Your task to perform on an android device: Go to accessibility settings Image 0: 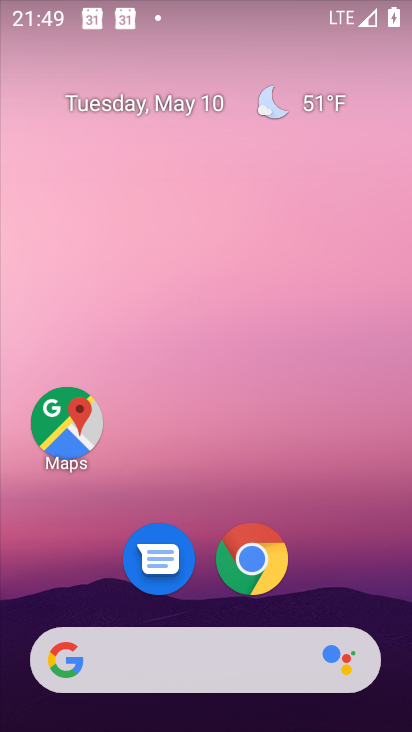
Step 0: drag from (316, 490) to (222, 32)
Your task to perform on an android device: Go to accessibility settings Image 1: 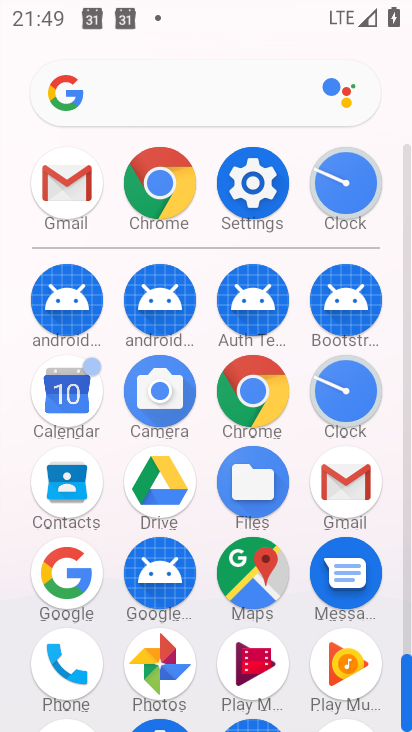
Step 1: click (253, 182)
Your task to perform on an android device: Go to accessibility settings Image 2: 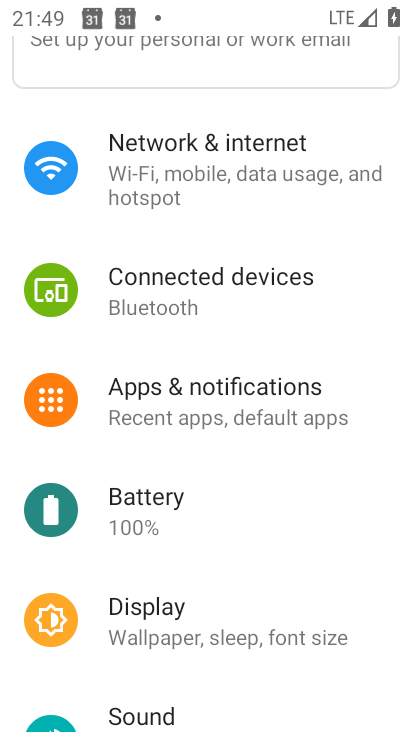
Step 2: drag from (211, 575) to (260, 471)
Your task to perform on an android device: Go to accessibility settings Image 3: 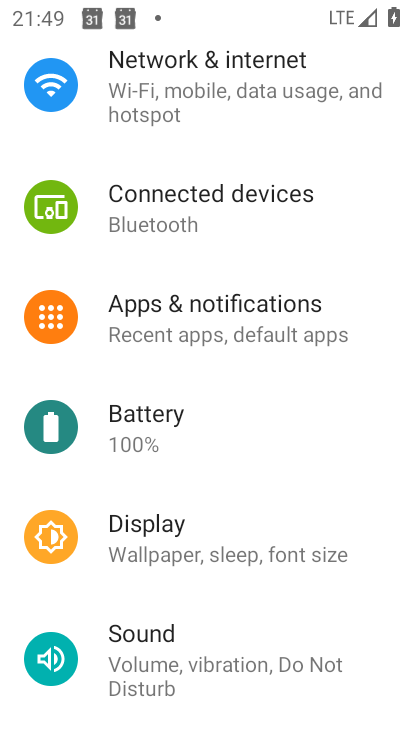
Step 3: drag from (214, 597) to (253, 506)
Your task to perform on an android device: Go to accessibility settings Image 4: 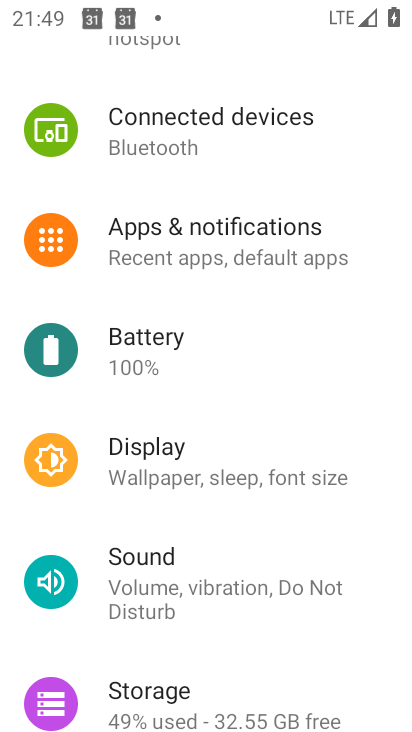
Step 4: drag from (225, 645) to (292, 479)
Your task to perform on an android device: Go to accessibility settings Image 5: 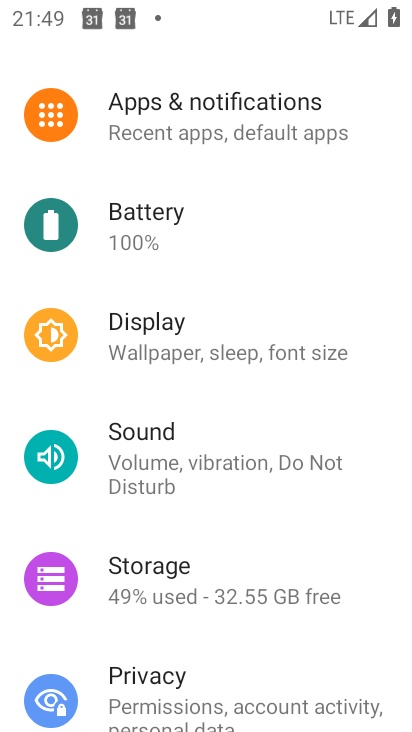
Step 5: drag from (230, 640) to (262, 498)
Your task to perform on an android device: Go to accessibility settings Image 6: 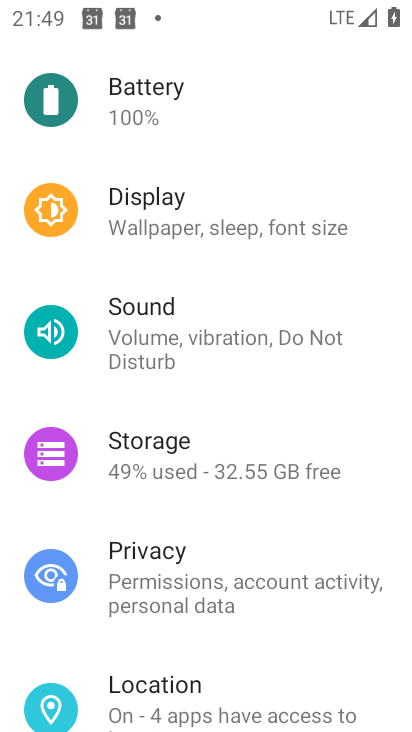
Step 6: drag from (153, 647) to (213, 506)
Your task to perform on an android device: Go to accessibility settings Image 7: 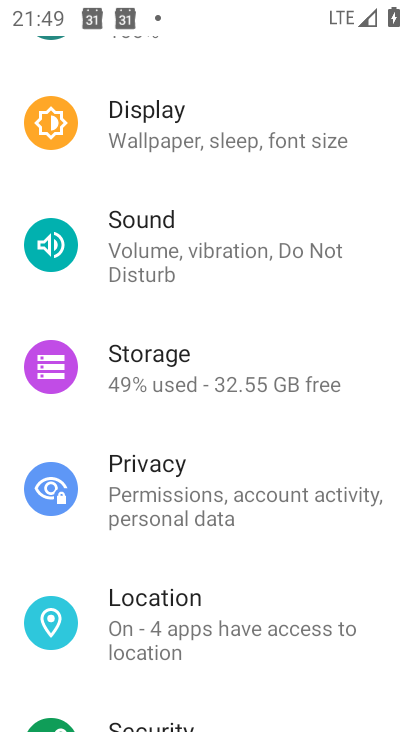
Step 7: drag from (132, 668) to (165, 526)
Your task to perform on an android device: Go to accessibility settings Image 8: 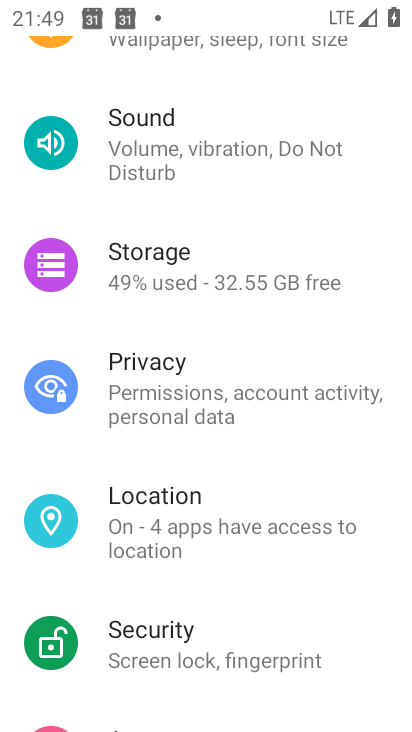
Step 8: drag from (132, 594) to (201, 439)
Your task to perform on an android device: Go to accessibility settings Image 9: 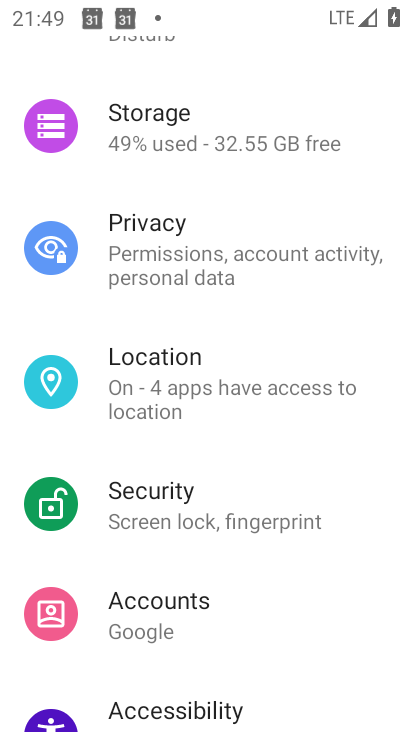
Step 9: drag from (122, 560) to (254, 403)
Your task to perform on an android device: Go to accessibility settings Image 10: 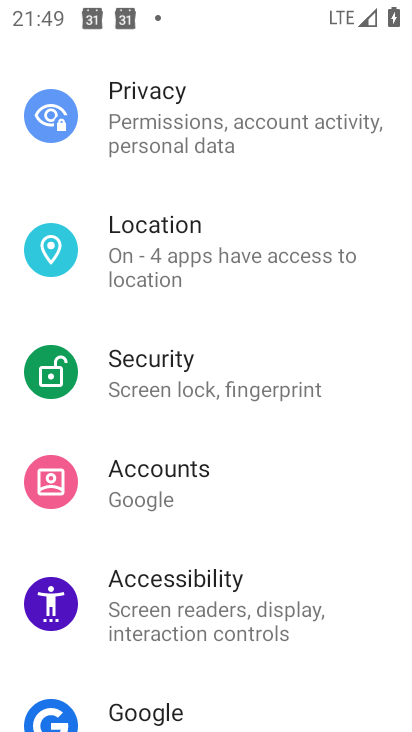
Step 10: click (178, 578)
Your task to perform on an android device: Go to accessibility settings Image 11: 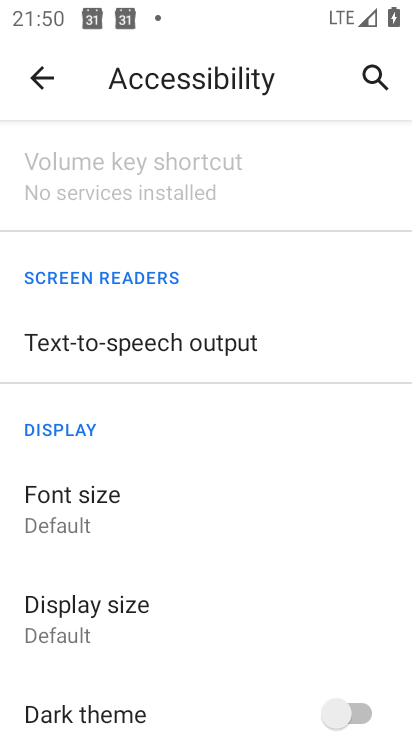
Step 11: task complete